Your task to perform on an android device: Open CNN.com Image 0: 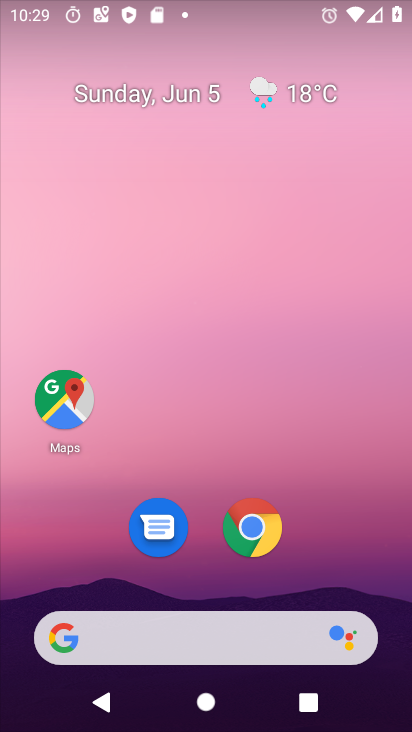
Step 0: drag from (362, 583) to (233, 11)
Your task to perform on an android device: Open CNN.com Image 1: 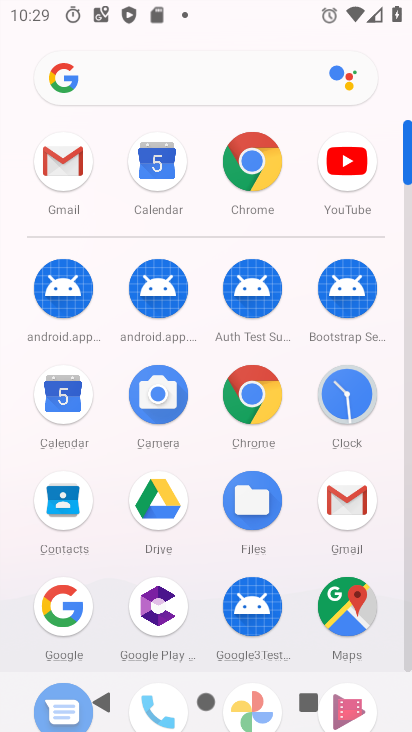
Step 1: click (272, 176)
Your task to perform on an android device: Open CNN.com Image 2: 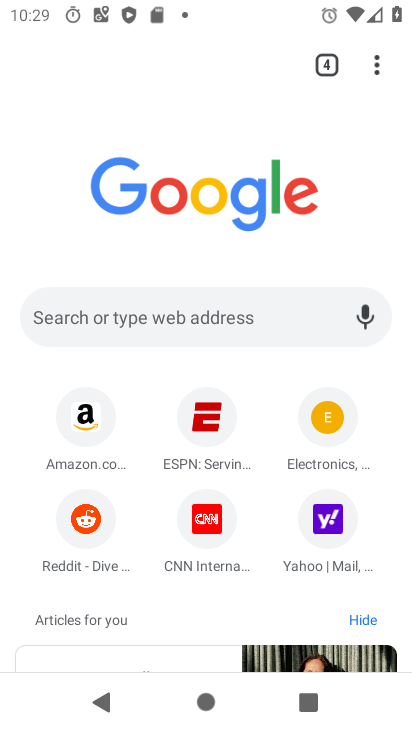
Step 2: click (218, 310)
Your task to perform on an android device: Open CNN.com Image 3: 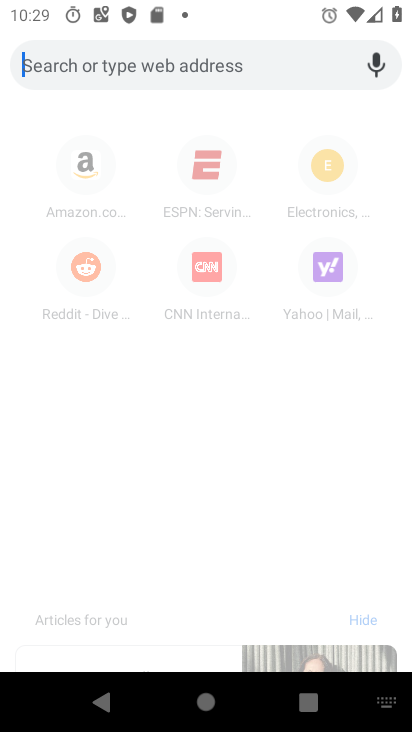
Step 3: press back button
Your task to perform on an android device: Open CNN.com Image 4: 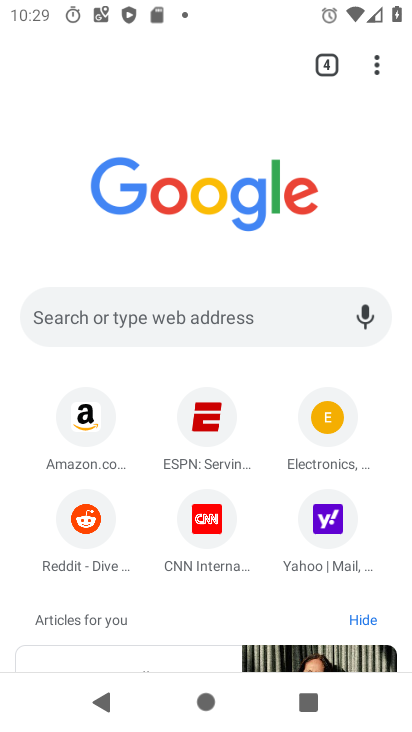
Step 4: click (198, 548)
Your task to perform on an android device: Open CNN.com Image 5: 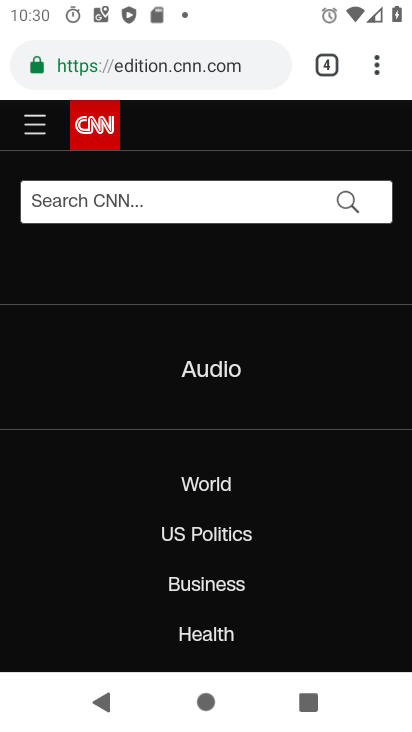
Step 5: task complete